Your task to perform on an android device: turn on bluetooth scan Image 0: 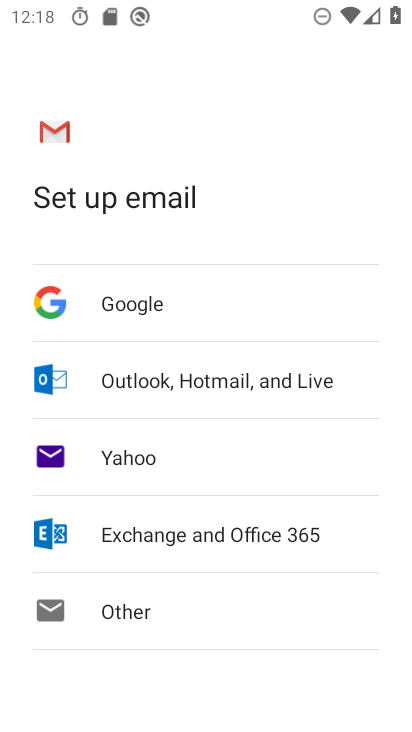
Step 0: press back button
Your task to perform on an android device: turn on bluetooth scan Image 1: 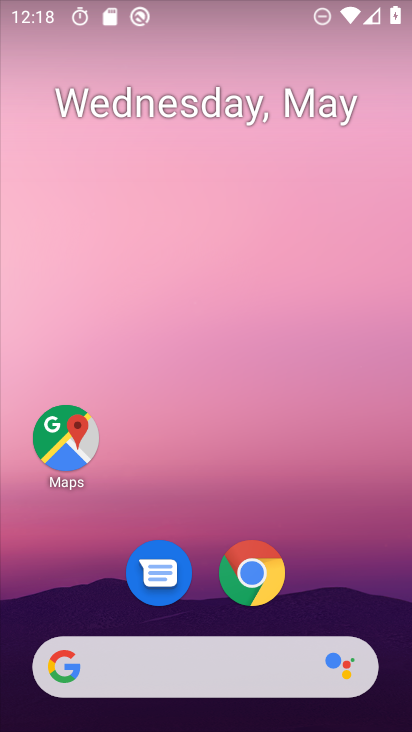
Step 1: drag from (354, 545) to (302, 60)
Your task to perform on an android device: turn on bluetooth scan Image 2: 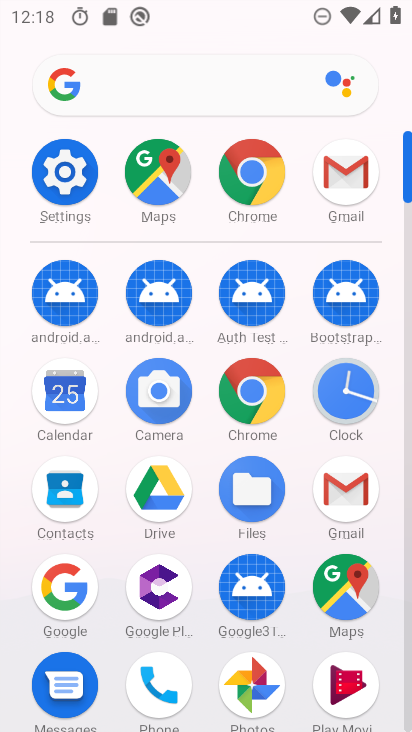
Step 2: click (62, 172)
Your task to perform on an android device: turn on bluetooth scan Image 3: 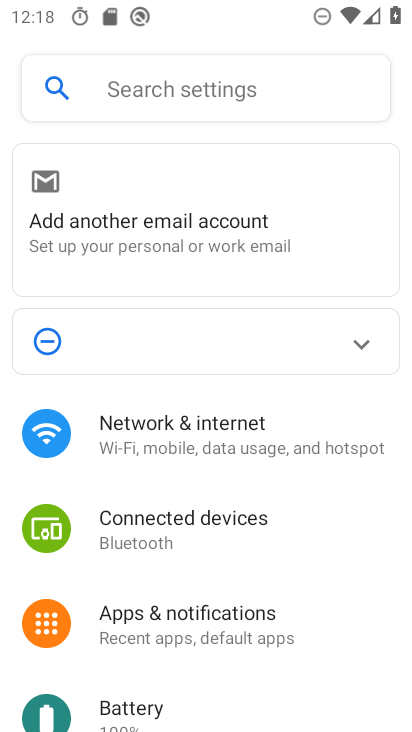
Step 3: drag from (303, 627) to (332, 263)
Your task to perform on an android device: turn on bluetooth scan Image 4: 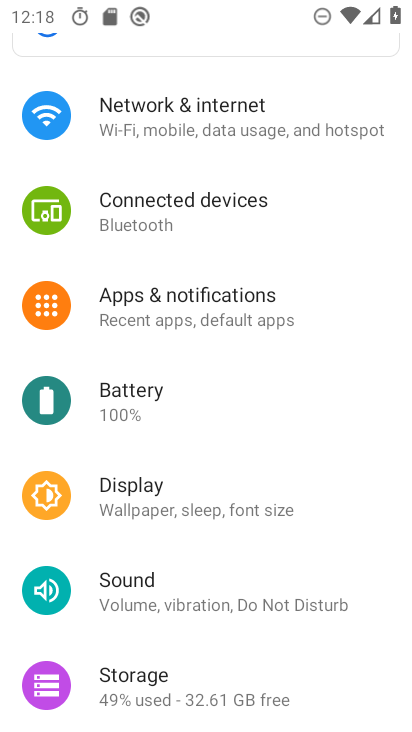
Step 4: drag from (249, 614) to (297, 162)
Your task to perform on an android device: turn on bluetooth scan Image 5: 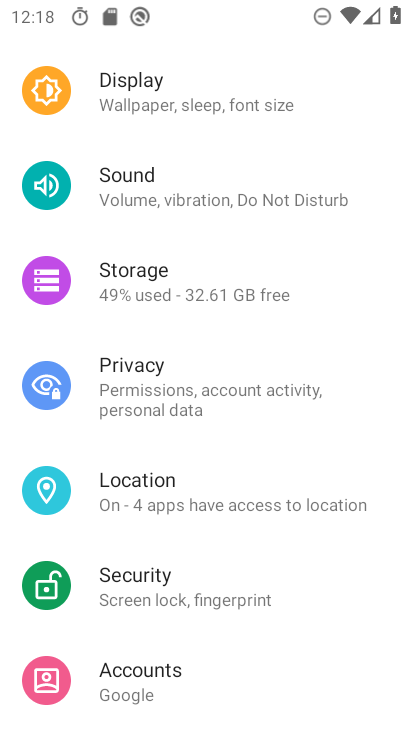
Step 5: drag from (226, 602) to (252, 289)
Your task to perform on an android device: turn on bluetooth scan Image 6: 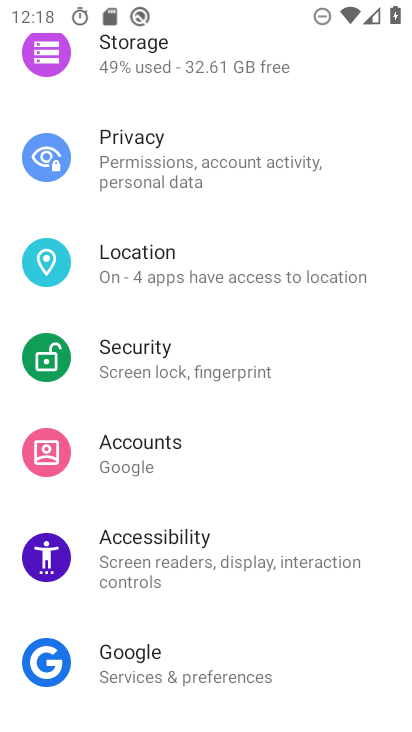
Step 6: click (172, 247)
Your task to perform on an android device: turn on bluetooth scan Image 7: 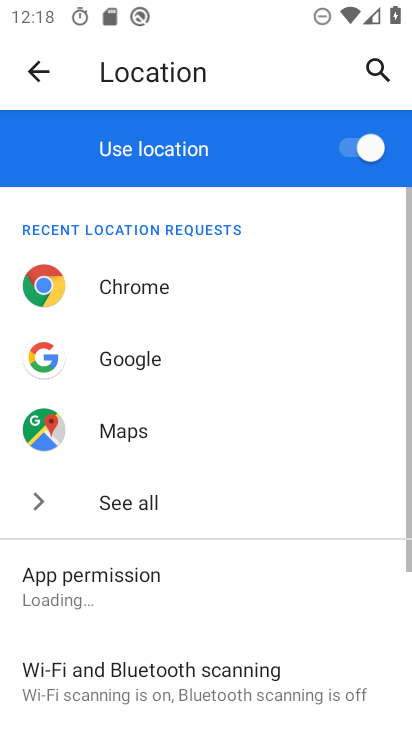
Step 7: click (169, 688)
Your task to perform on an android device: turn on bluetooth scan Image 8: 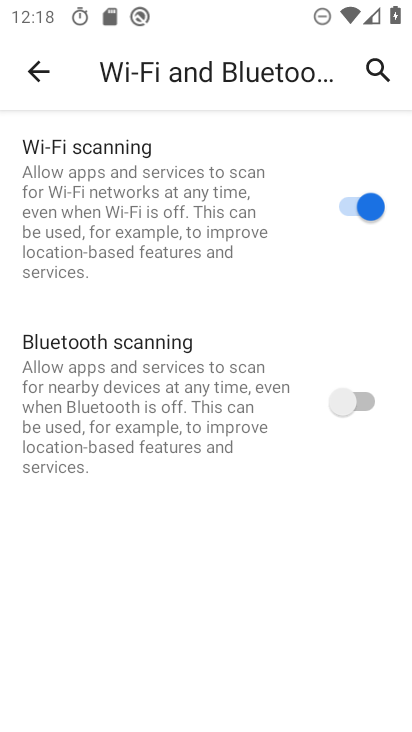
Step 8: click (345, 390)
Your task to perform on an android device: turn on bluetooth scan Image 9: 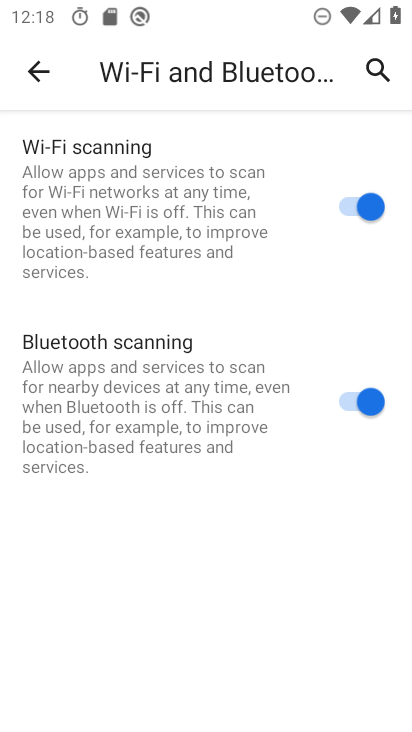
Step 9: task complete